Your task to perform on an android device: Check the weather Image 0: 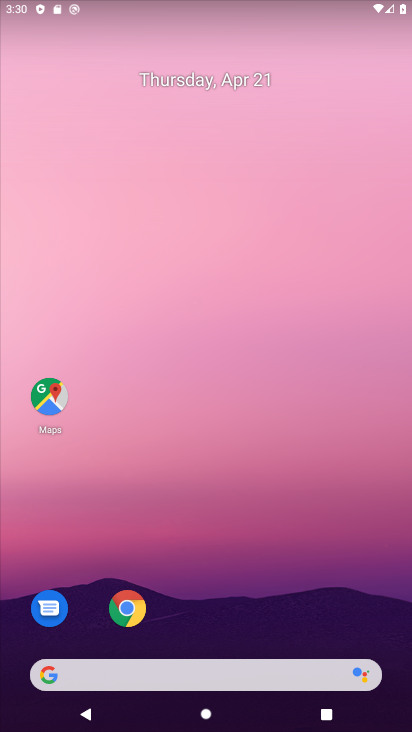
Step 0: drag from (312, 582) to (340, 2)
Your task to perform on an android device: Check the weather Image 1: 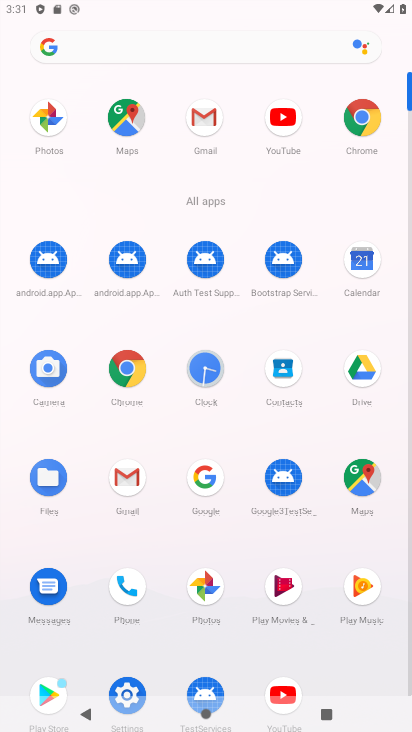
Step 1: click (199, 483)
Your task to perform on an android device: Check the weather Image 2: 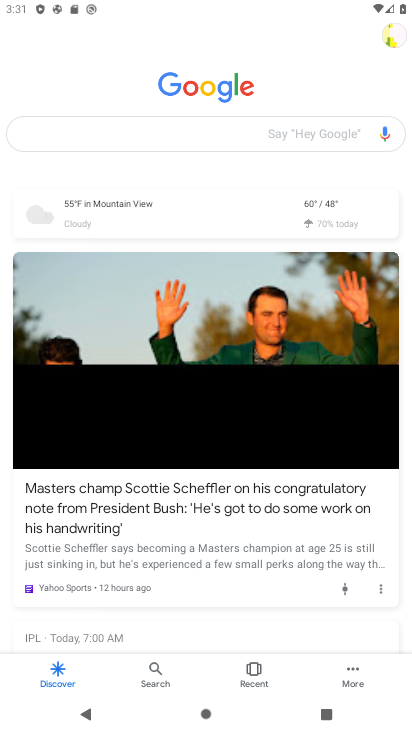
Step 2: click (190, 137)
Your task to perform on an android device: Check the weather Image 3: 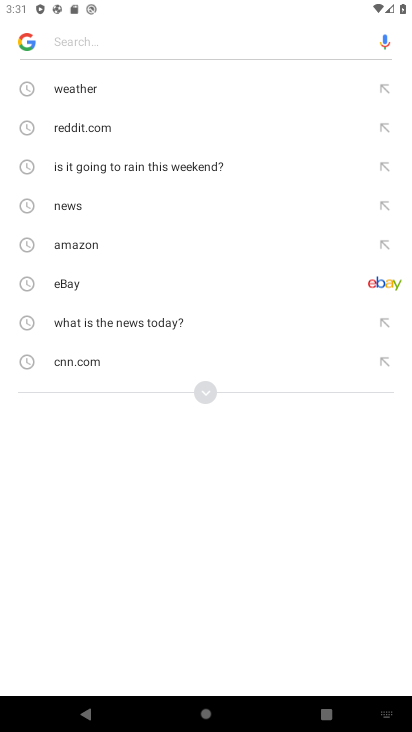
Step 3: click (147, 88)
Your task to perform on an android device: Check the weather Image 4: 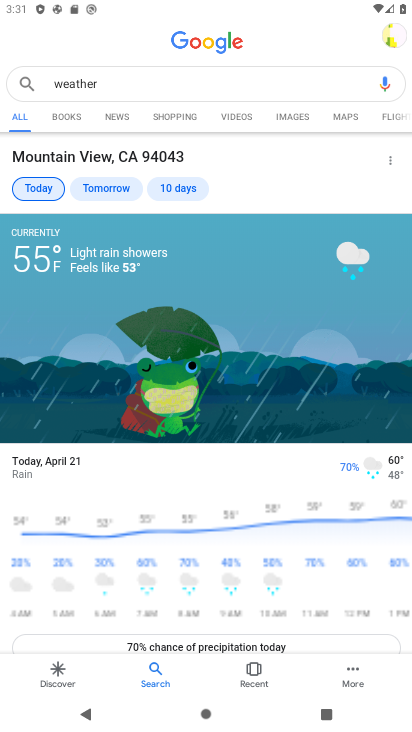
Step 4: task complete